Your task to perform on an android device: Check the weather Image 0: 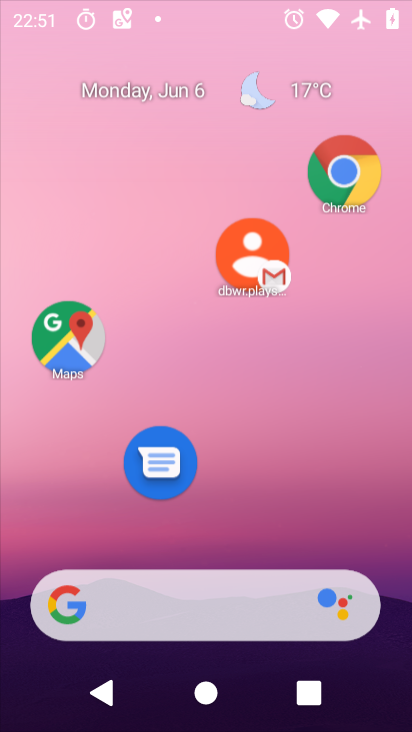
Step 0: drag from (185, 385) to (108, 1)
Your task to perform on an android device: Check the weather Image 1: 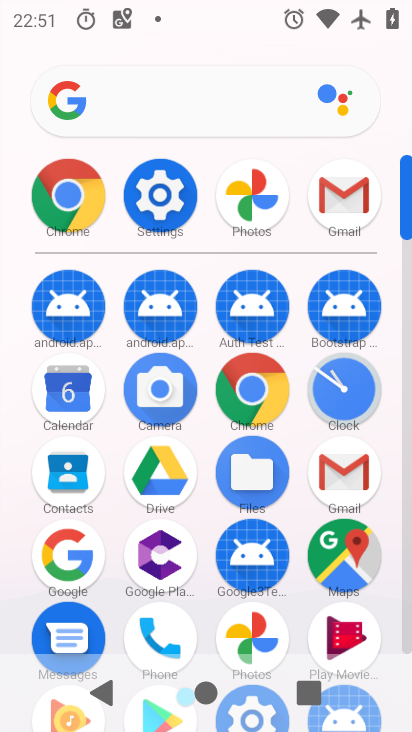
Step 1: click (213, 94)
Your task to perform on an android device: Check the weather Image 2: 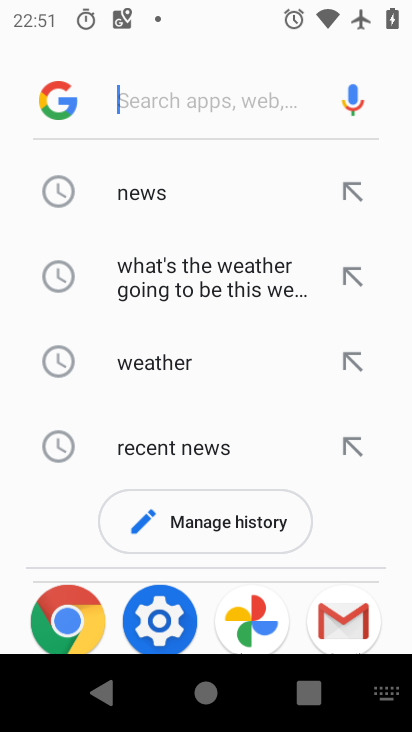
Step 2: drag from (207, 402) to (223, 143)
Your task to perform on an android device: Check the weather Image 3: 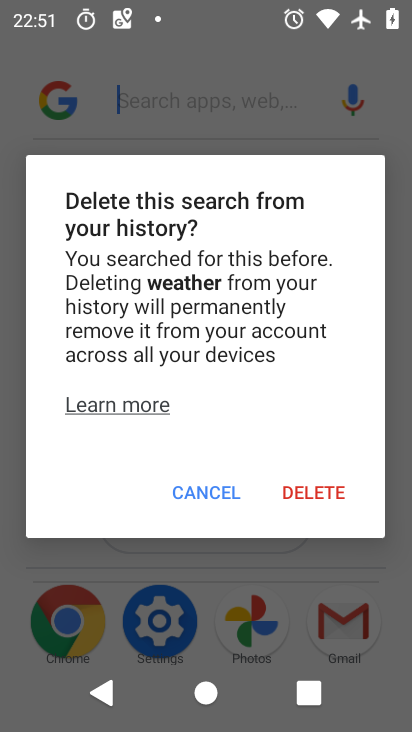
Step 3: click (204, 486)
Your task to perform on an android device: Check the weather Image 4: 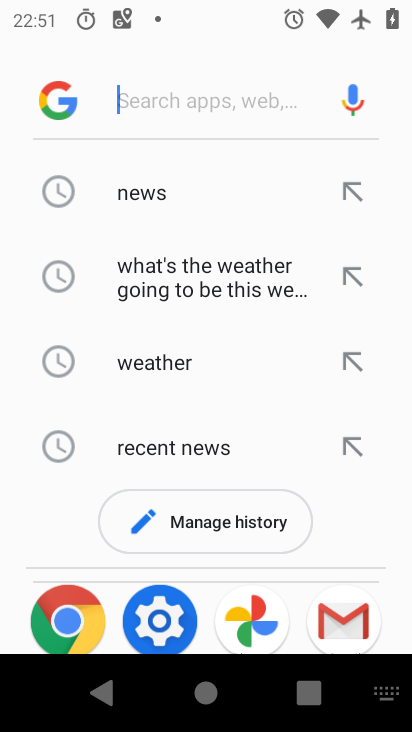
Step 4: click (186, 395)
Your task to perform on an android device: Check the weather Image 5: 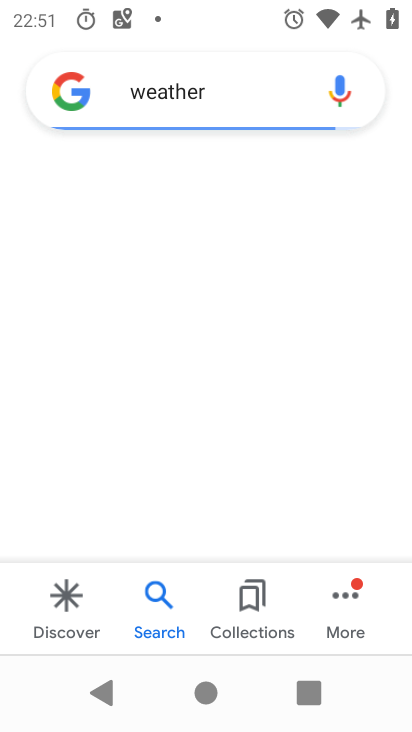
Step 5: task complete